Your task to perform on an android device: open a new tab in the chrome app Image 0: 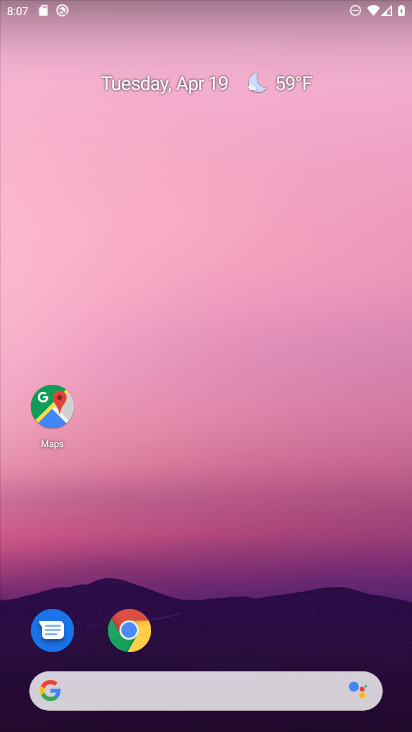
Step 0: click (135, 623)
Your task to perform on an android device: open a new tab in the chrome app Image 1: 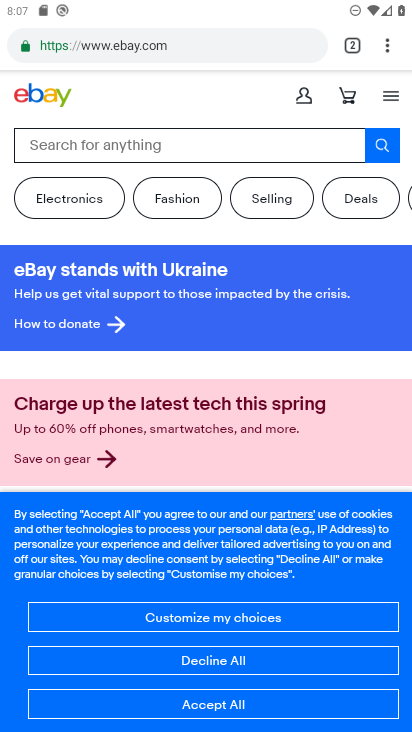
Step 1: click (386, 50)
Your task to perform on an android device: open a new tab in the chrome app Image 2: 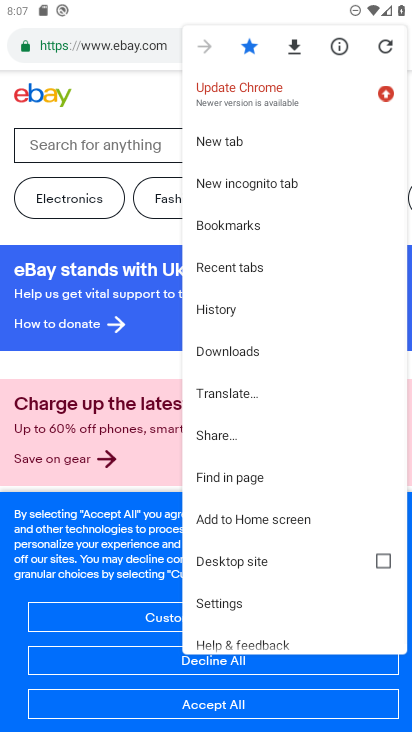
Step 2: click (220, 138)
Your task to perform on an android device: open a new tab in the chrome app Image 3: 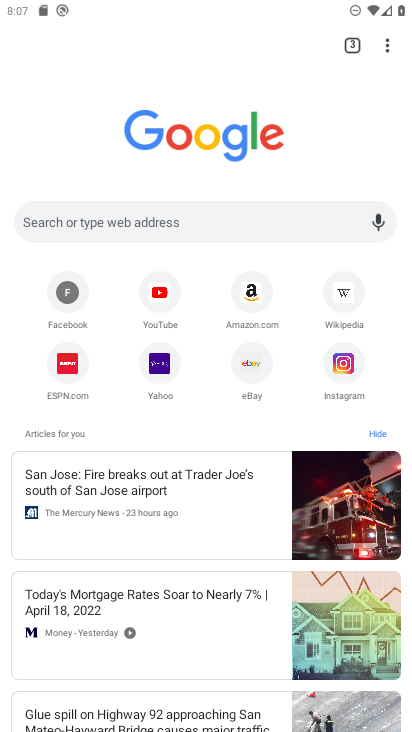
Step 3: task complete